Your task to perform on an android device: Open network settings Image 0: 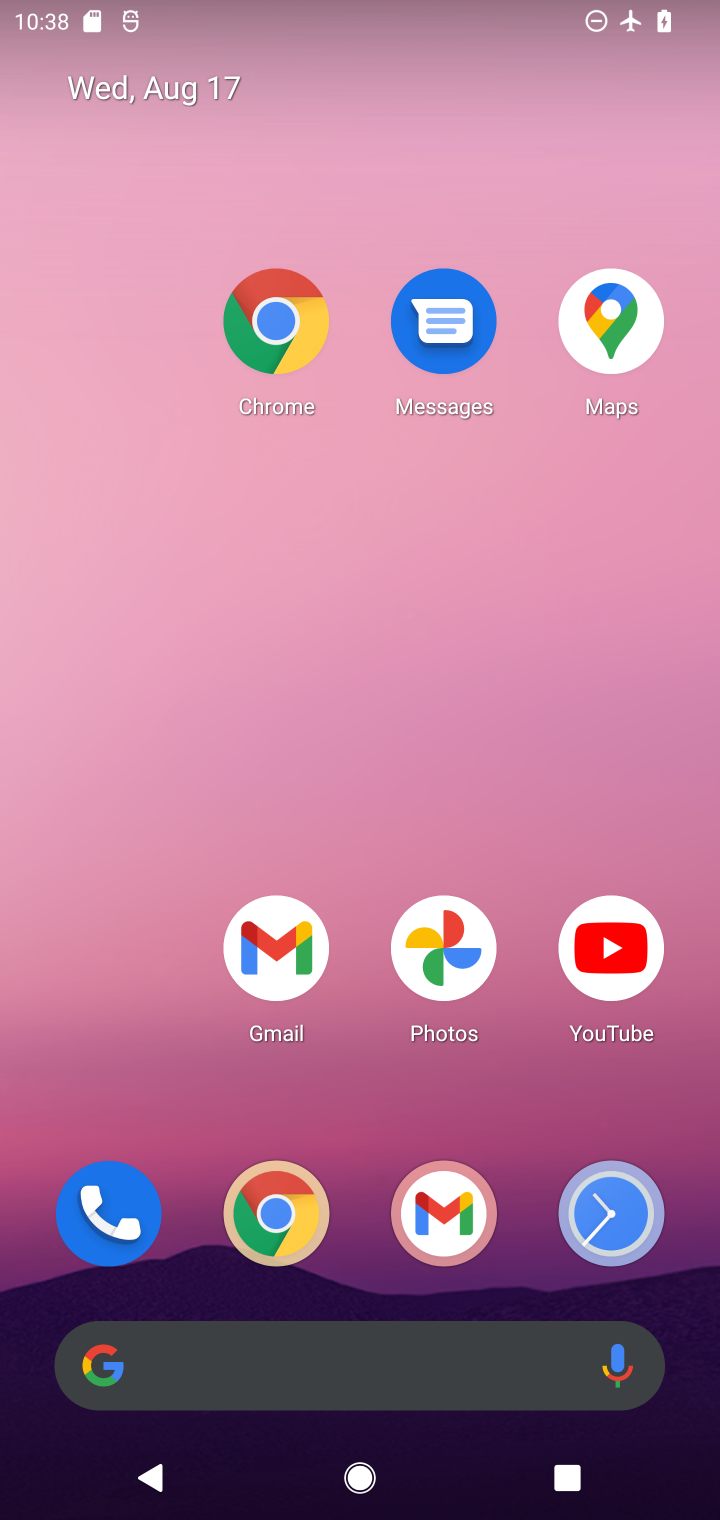
Step 0: drag from (391, 1293) to (374, 73)
Your task to perform on an android device: Open network settings Image 1: 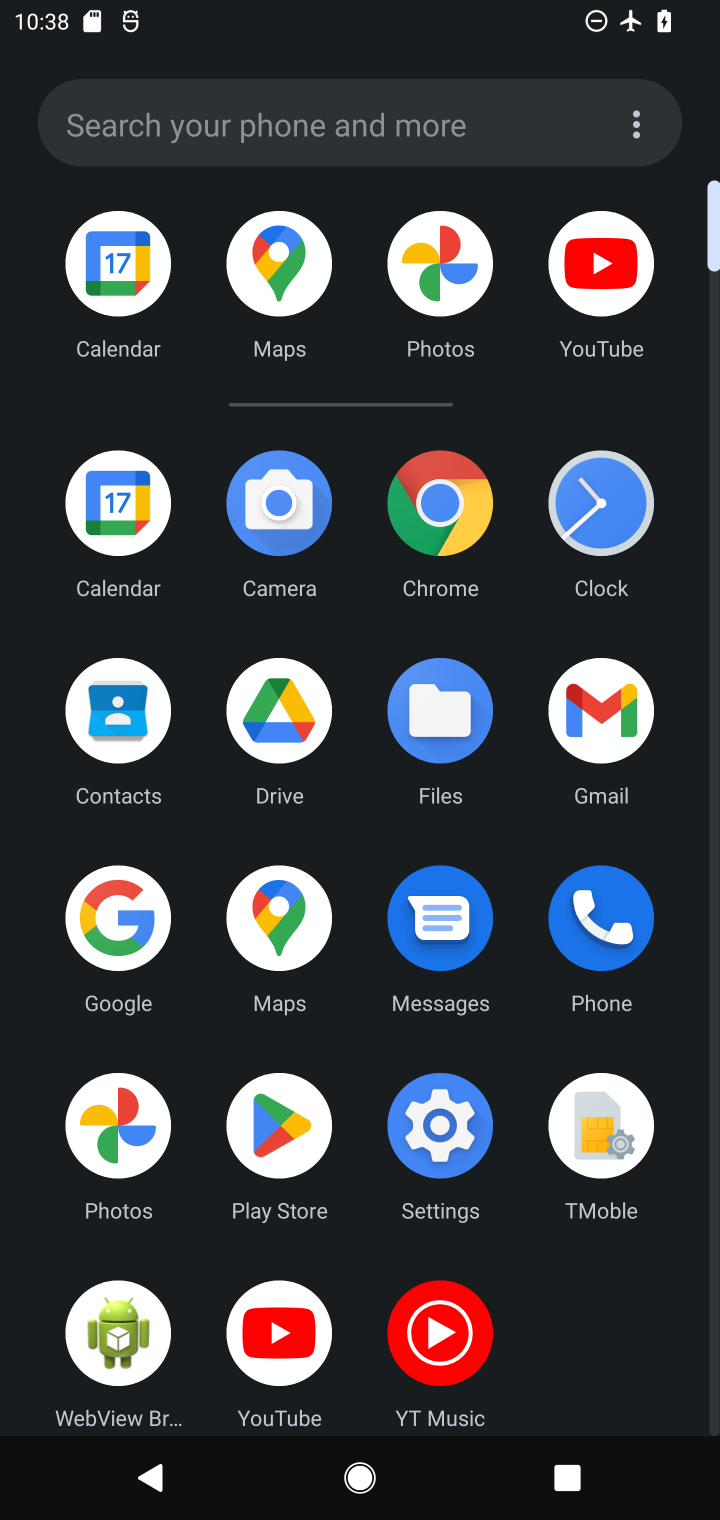
Step 1: click (469, 1169)
Your task to perform on an android device: Open network settings Image 2: 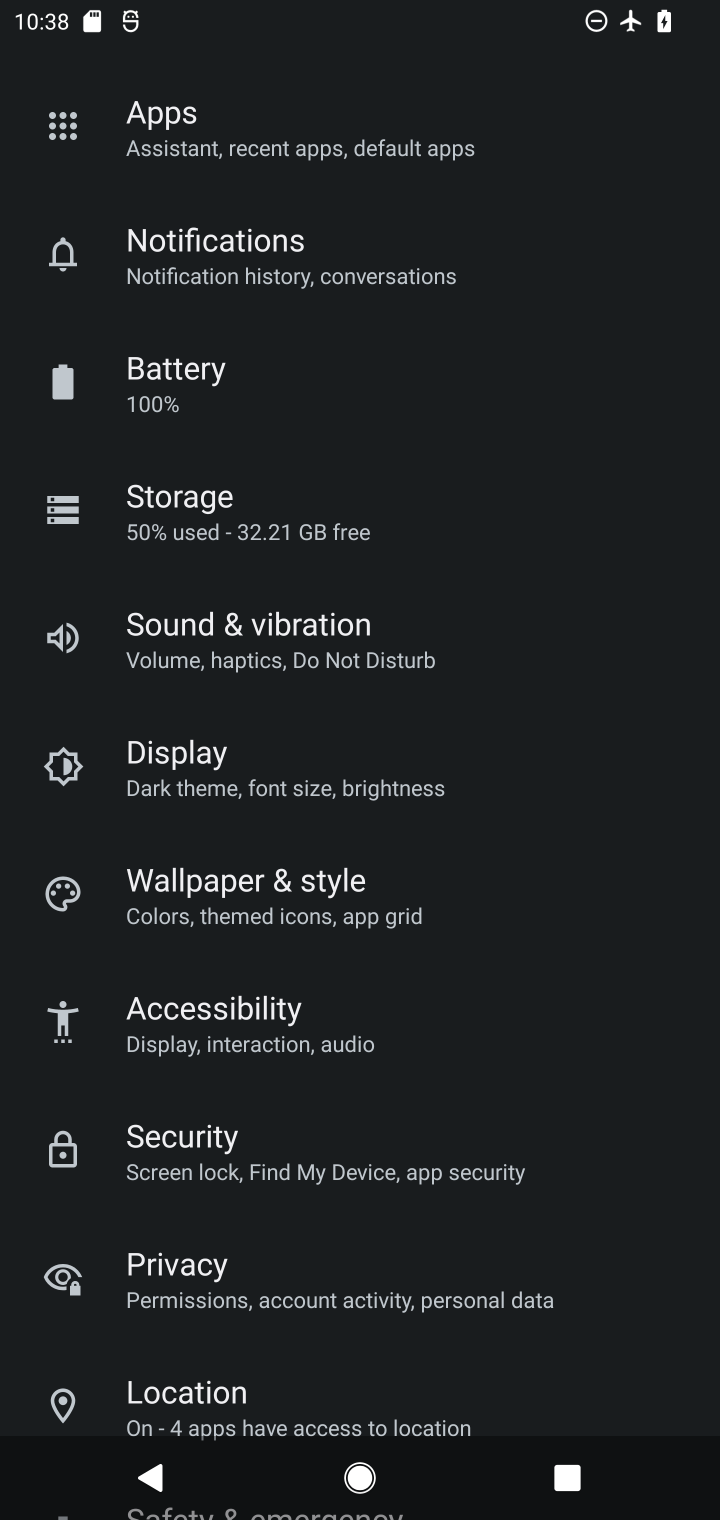
Step 2: drag from (453, 528) to (630, 1206)
Your task to perform on an android device: Open network settings Image 3: 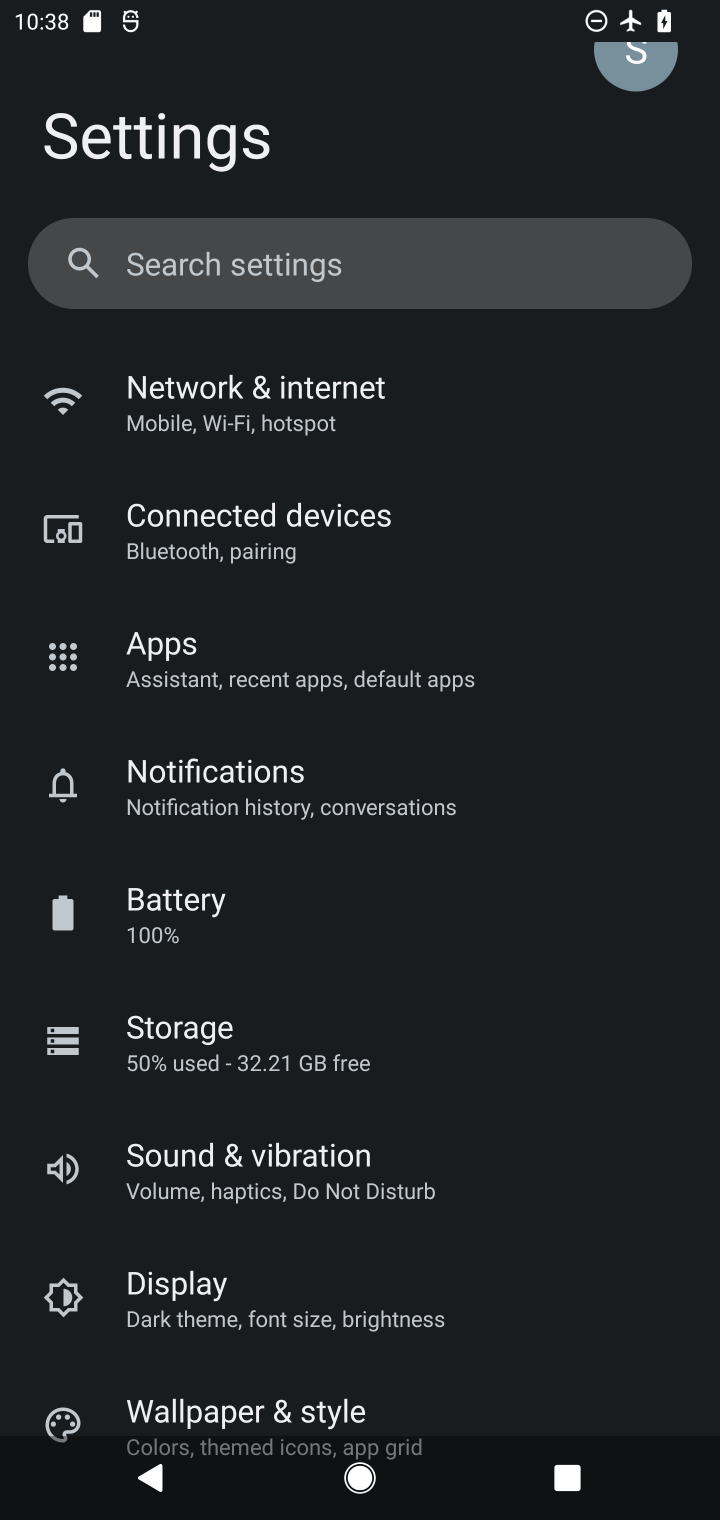
Step 3: click (392, 437)
Your task to perform on an android device: Open network settings Image 4: 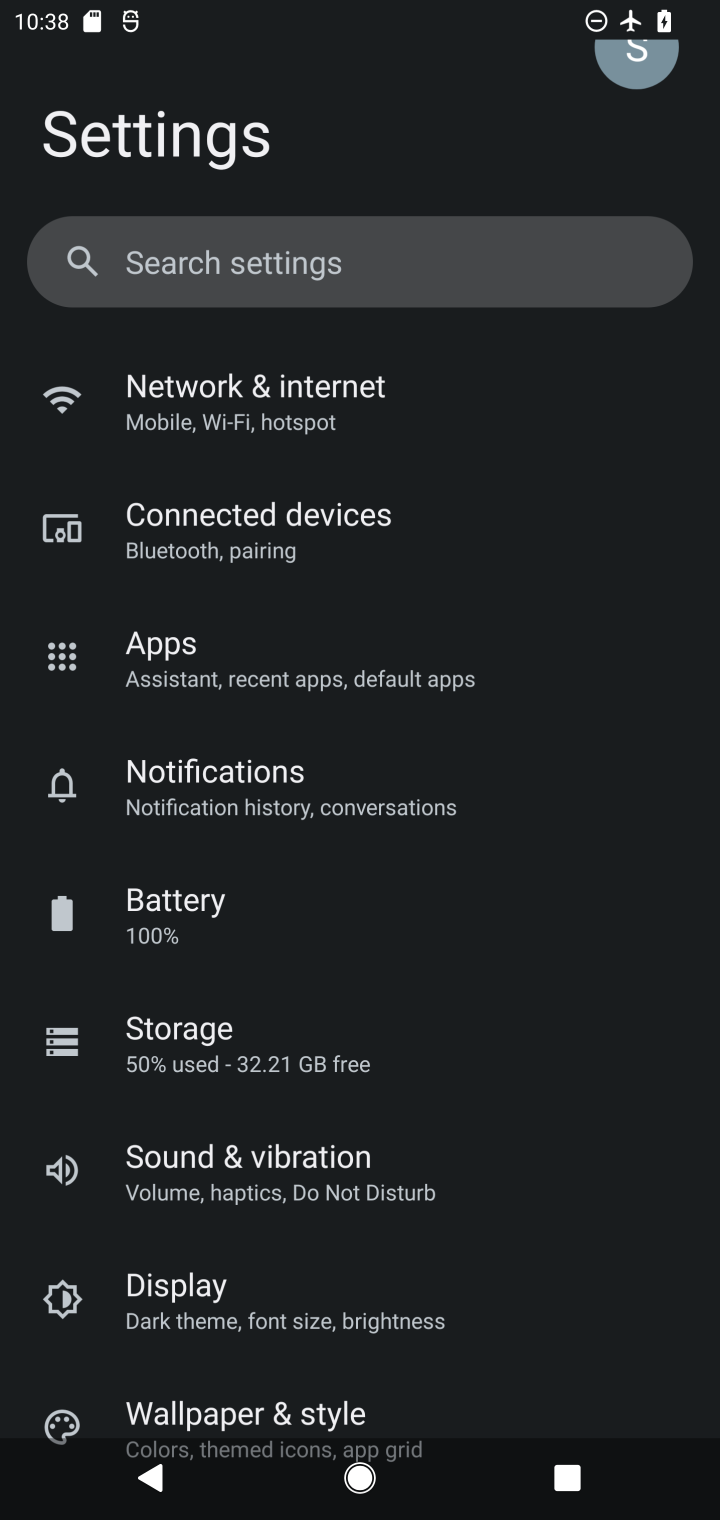
Step 4: task complete